Your task to perform on an android device: see tabs open on other devices in the chrome app Image 0: 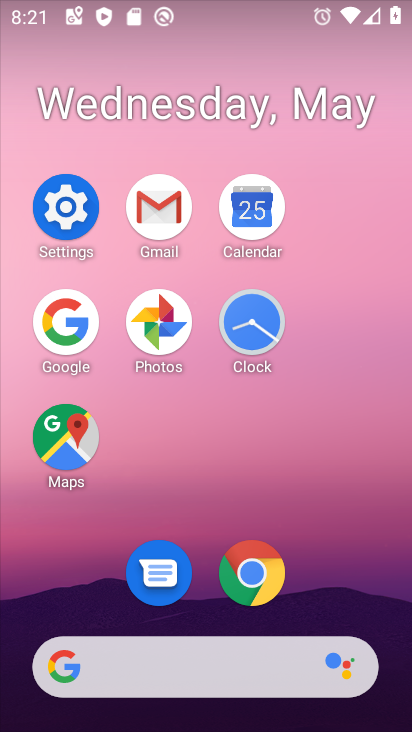
Step 0: click (249, 586)
Your task to perform on an android device: see tabs open on other devices in the chrome app Image 1: 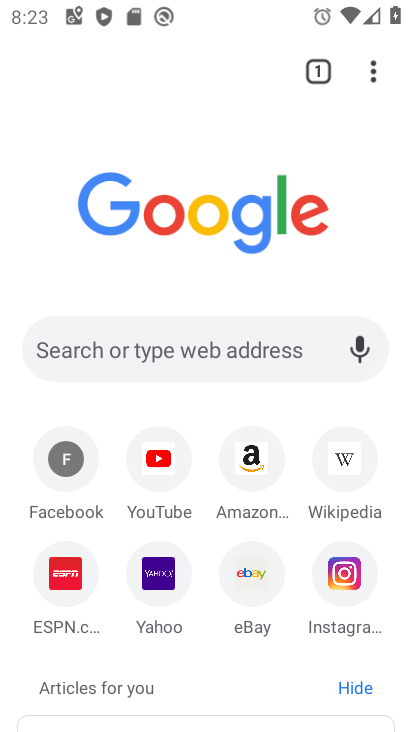
Step 1: click (377, 78)
Your task to perform on an android device: see tabs open on other devices in the chrome app Image 2: 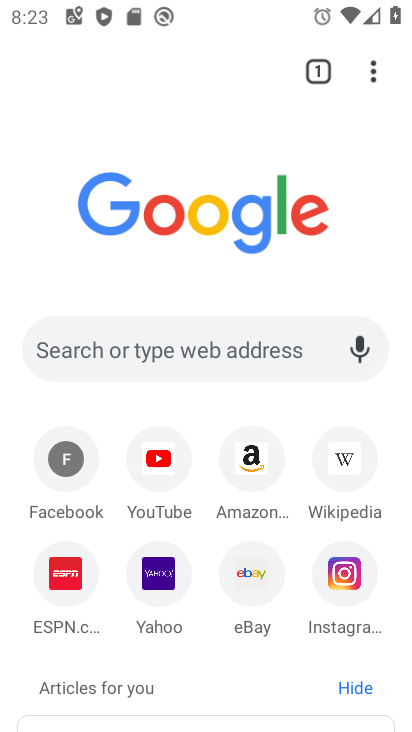
Step 2: click (385, 61)
Your task to perform on an android device: see tabs open on other devices in the chrome app Image 3: 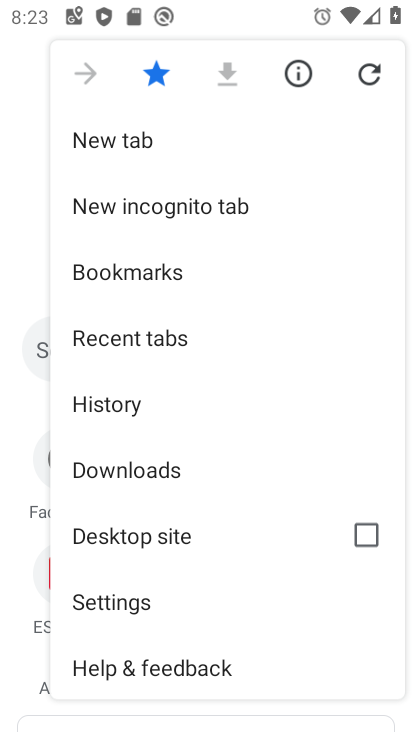
Step 3: click (195, 339)
Your task to perform on an android device: see tabs open on other devices in the chrome app Image 4: 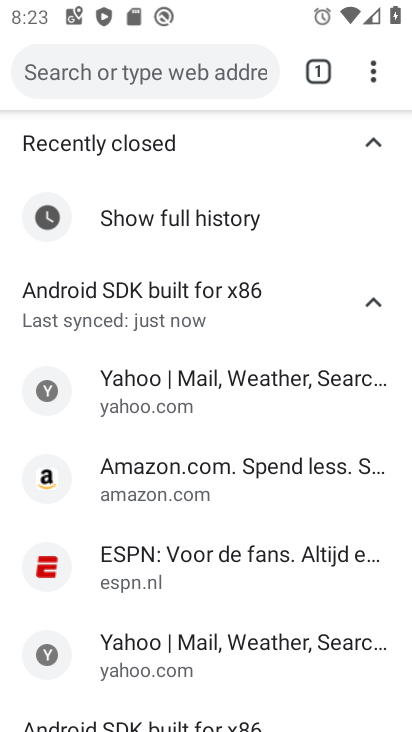
Step 4: task complete